Your task to perform on an android device: Open Reddit.com Image 0: 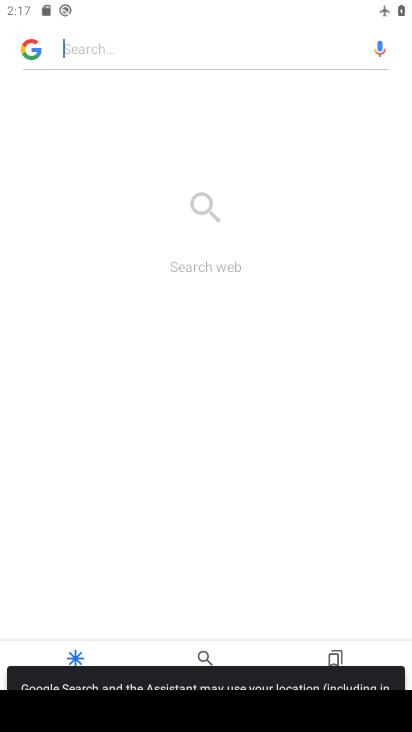
Step 0: press back button
Your task to perform on an android device: Open Reddit.com Image 1: 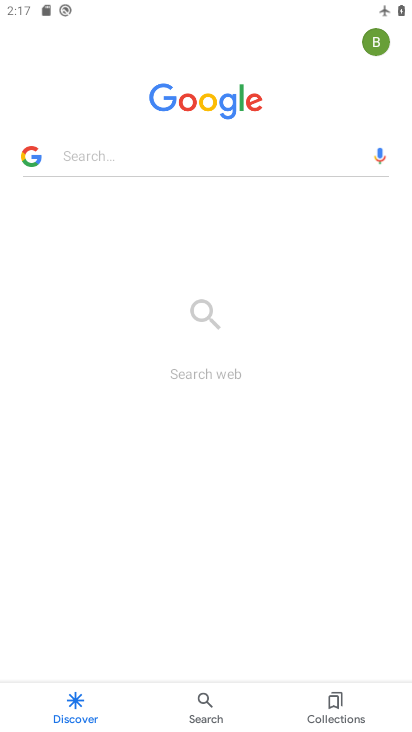
Step 1: press home button
Your task to perform on an android device: Open Reddit.com Image 2: 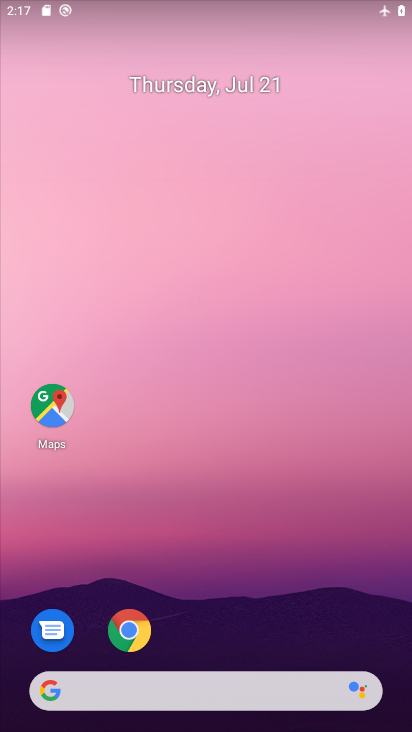
Step 2: drag from (237, 628) to (198, 34)
Your task to perform on an android device: Open Reddit.com Image 3: 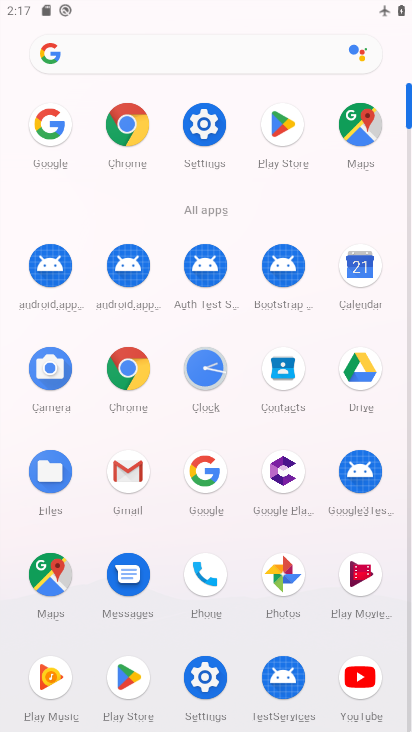
Step 3: click (130, 106)
Your task to perform on an android device: Open Reddit.com Image 4: 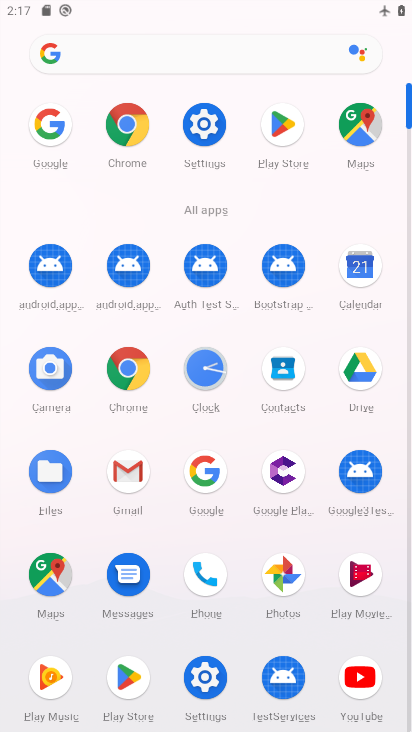
Step 4: click (135, 120)
Your task to perform on an android device: Open Reddit.com Image 5: 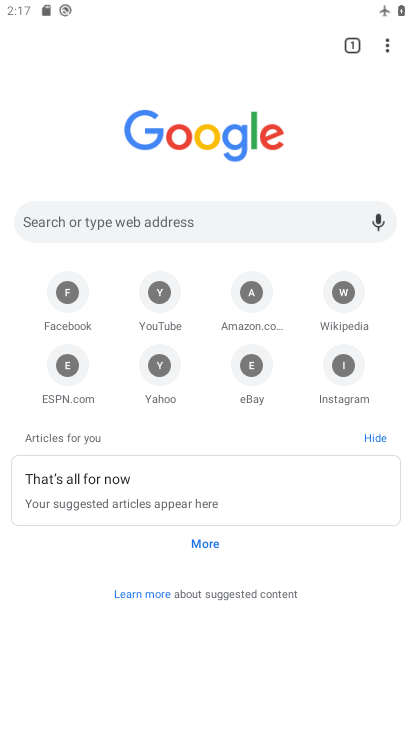
Step 5: click (87, 209)
Your task to perform on an android device: Open Reddit.com Image 6: 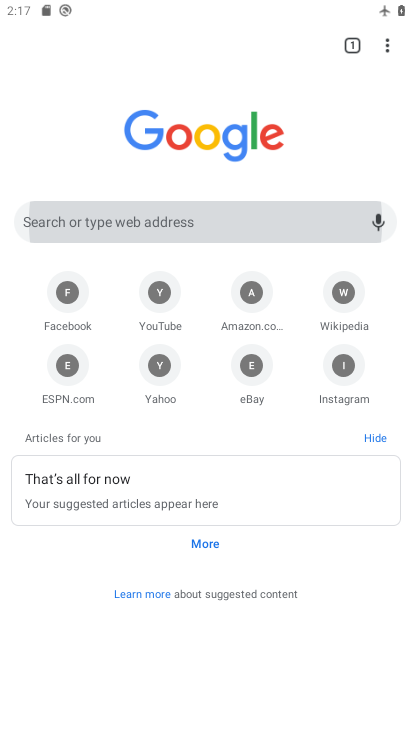
Step 6: click (92, 213)
Your task to perform on an android device: Open Reddit.com Image 7: 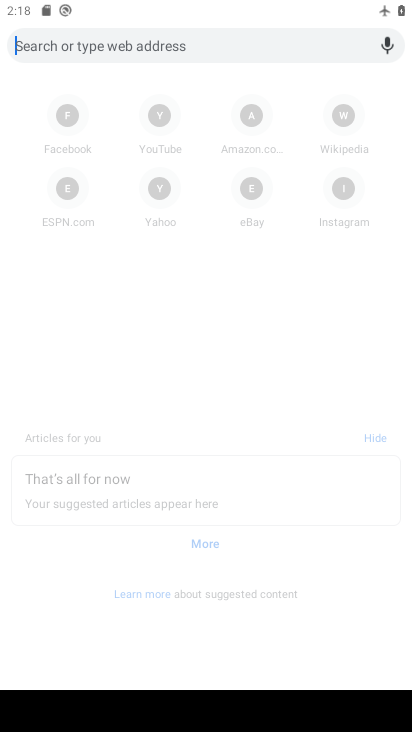
Step 7: type "reddit.com"
Your task to perform on an android device: Open Reddit.com Image 8: 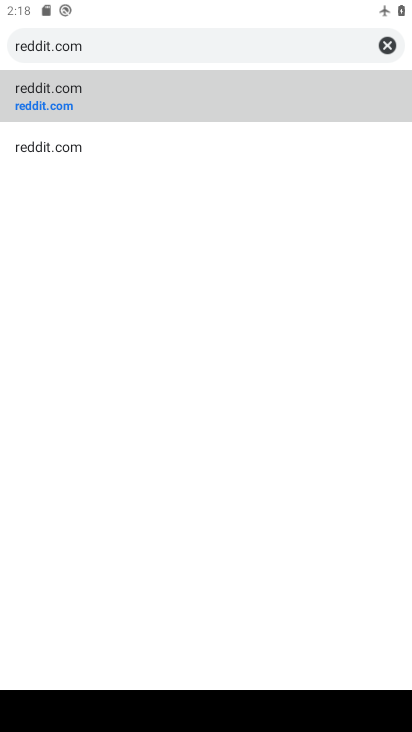
Step 8: click (47, 123)
Your task to perform on an android device: Open Reddit.com Image 9: 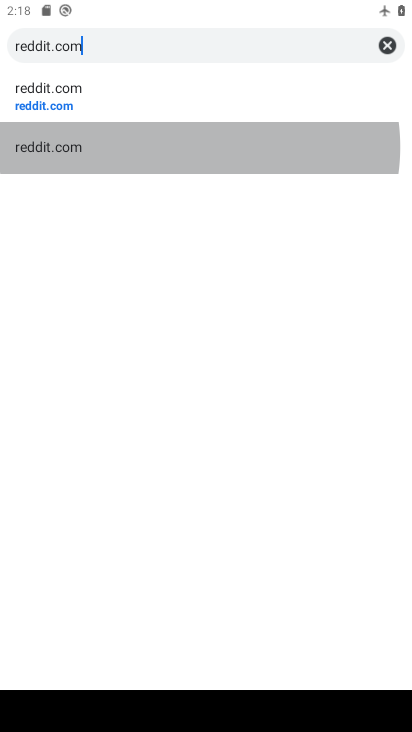
Step 9: click (45, 114)
Your task to perform on an android device: Open Reddit.com Image 10: 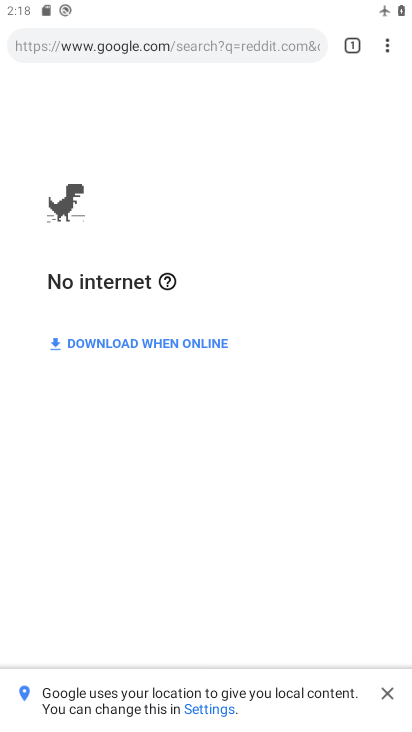
Step 10: task complete